Your task to perform on an android device: Open Google Chrome and click the shortcut for Amazon.com Image 0: 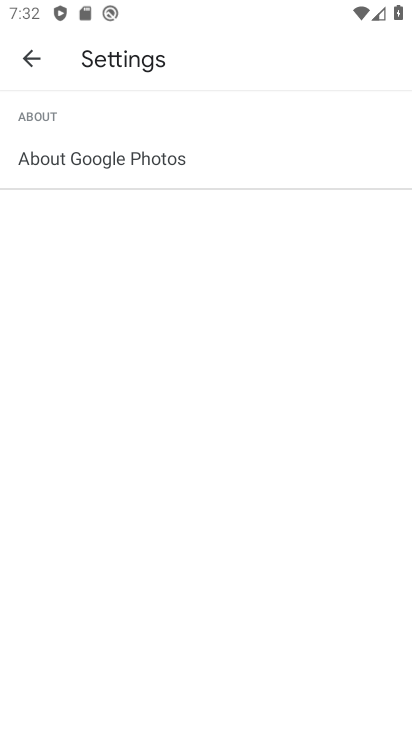
Step 0: press home button
Your task to perform on an android device: Open Google Chrome and click the shortcut for Amazon.com Image 1: 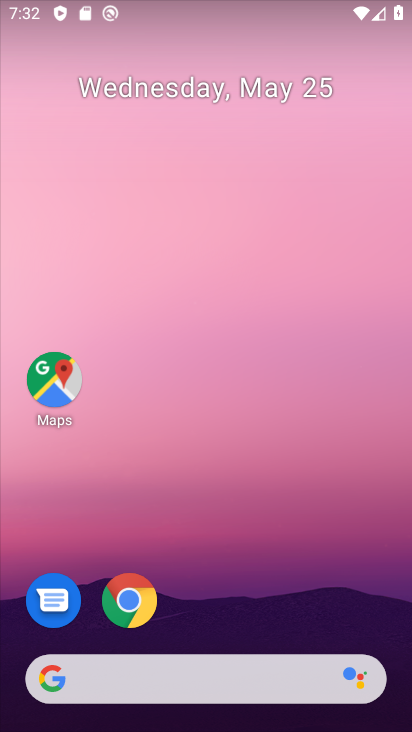
Step 1: drag from (288, 533) to (280, 194)
Your task to perform on an android device: Open Google Chrome and click the shortcut for Amazon.com Image 2: 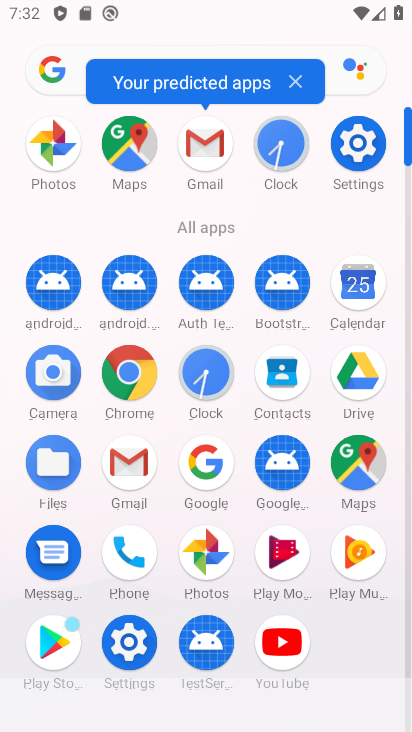
Step 2: click (135, 378)
Your task to perform on an android device: Open Google Chrome and click the shortcut for Amazon.com Image 3: 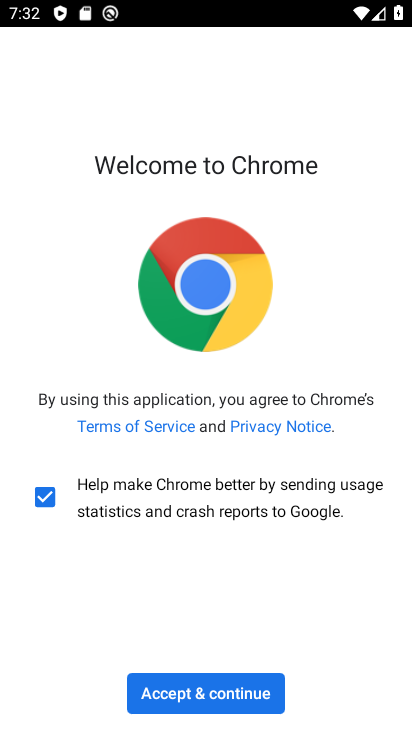
Step 3: click (184, 700)
Your task to perform on an android device: Open Google Chrome and click the shortcut for Amazon.com Image 4: 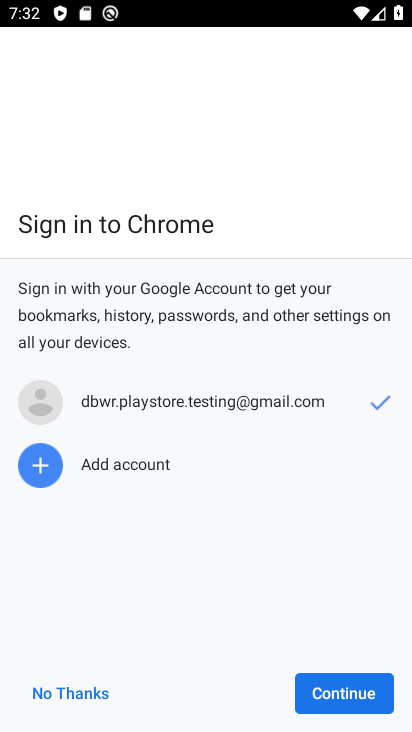
Step 4: click (329, 698)
Your task to perform on an android device: Open Google Chrome and click the shortcut for Amazon.com Image 5: 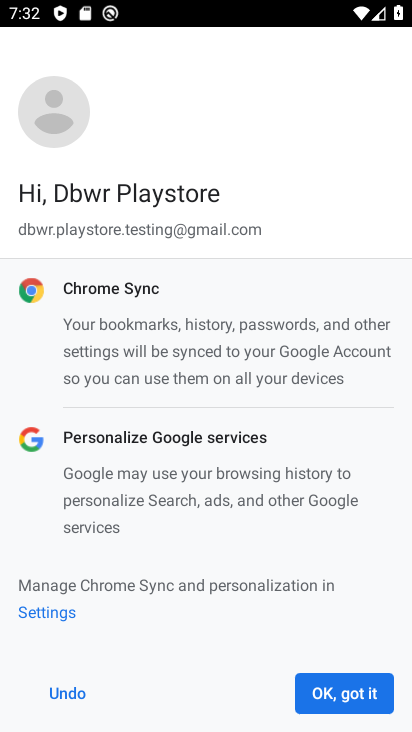
Step 5: click (327, 692)
Your task to perform on an android device: Open Google Chrome and click the shortcut for Amazon.com Image 6: 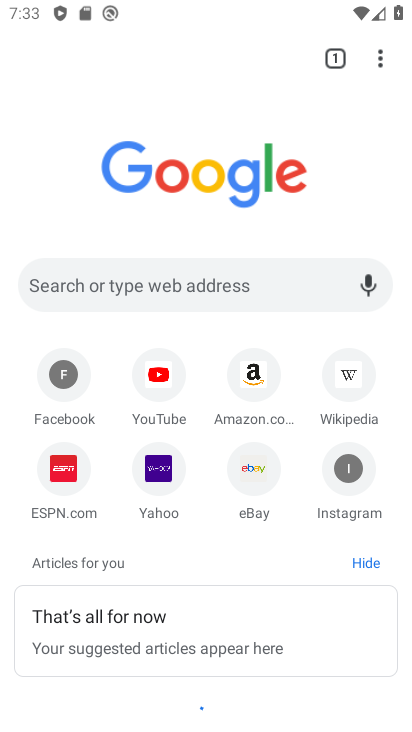
Step 6: click (244, 388)
Your task to perform on an android device: Open Google Chrome and click the shortcut for Amazon.com Image 7: 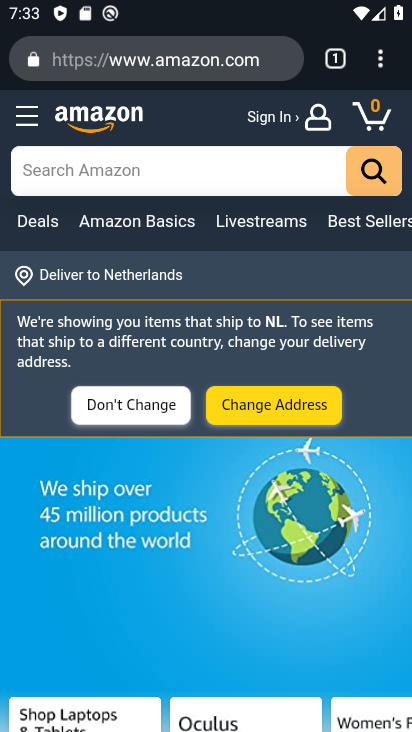
Step 7: task complete